Your task to perform on an android device: open app "The Home Depot" (install if not already installed) Image 0: 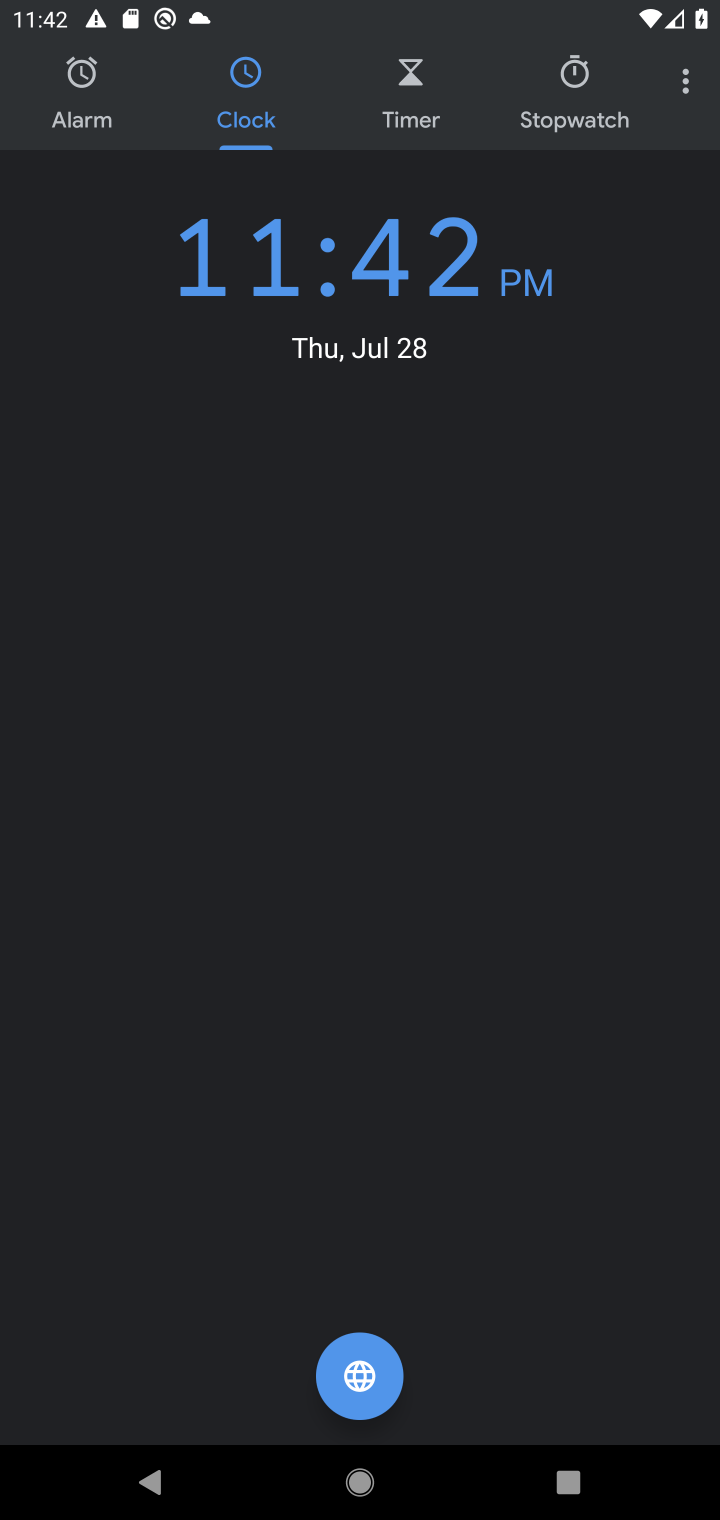
Step 0: press home button
Your task to perform on an android device: open app "The Home Depot" (install if not already installed) Image 1: 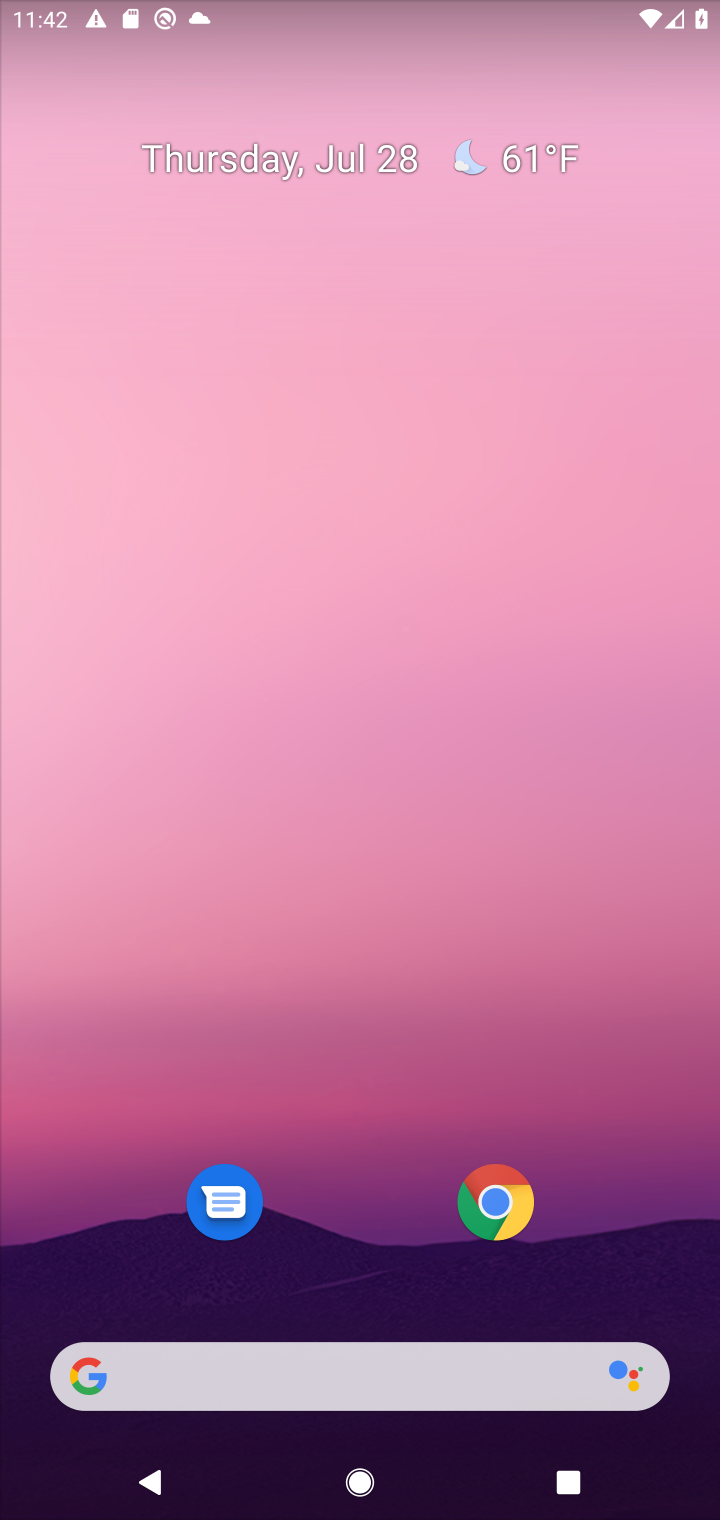
Step 1: click (295, 1393)
Your task to perform on an android device: open app "The Home Depot" (install if not already installed) Image 2: 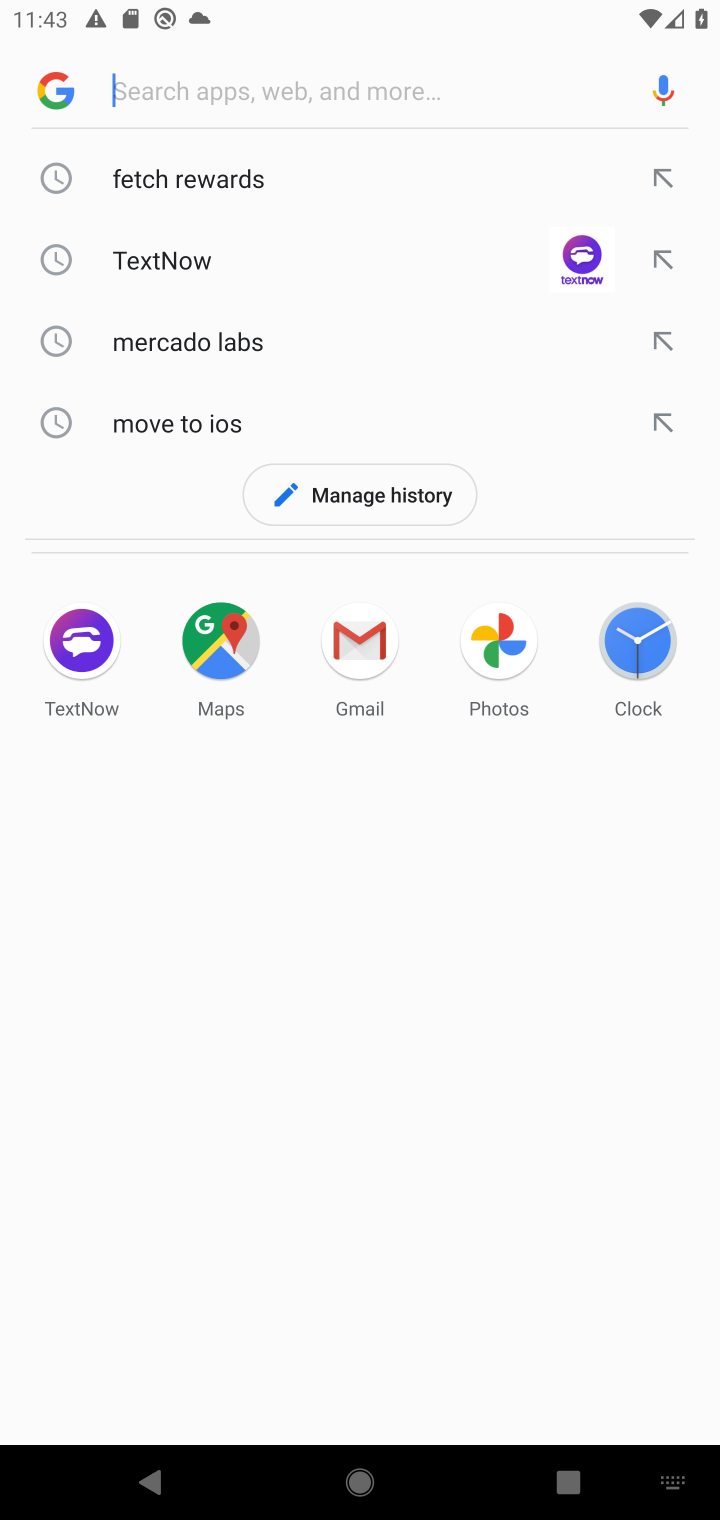
Step 2: type "the home depoet"
Your task to perform on an android device: open app "The Home Depot" (install if not already installed) Image 3: 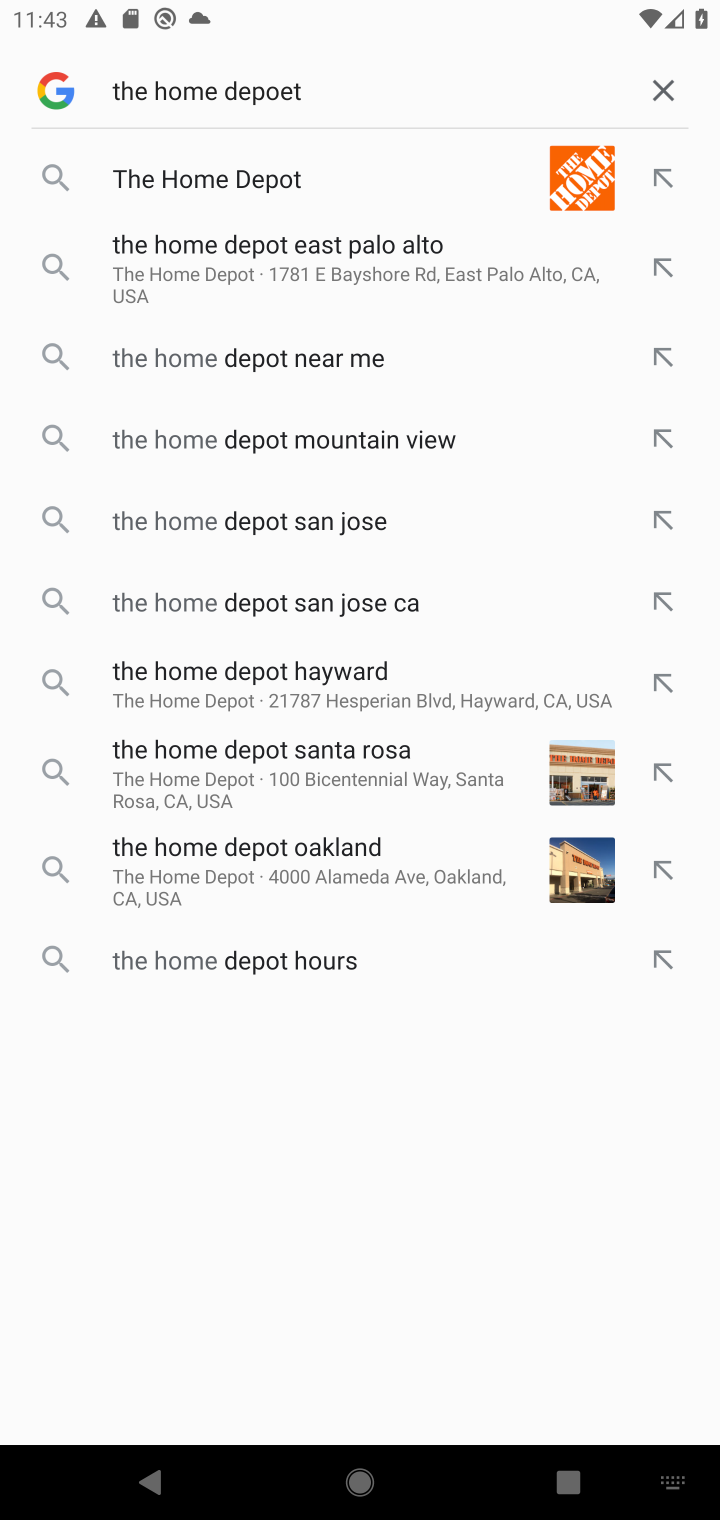
Step 3: click (325, 191)
Your task to perform on an android device: open app "The Home Depot" (install if not already installed) Image 4: 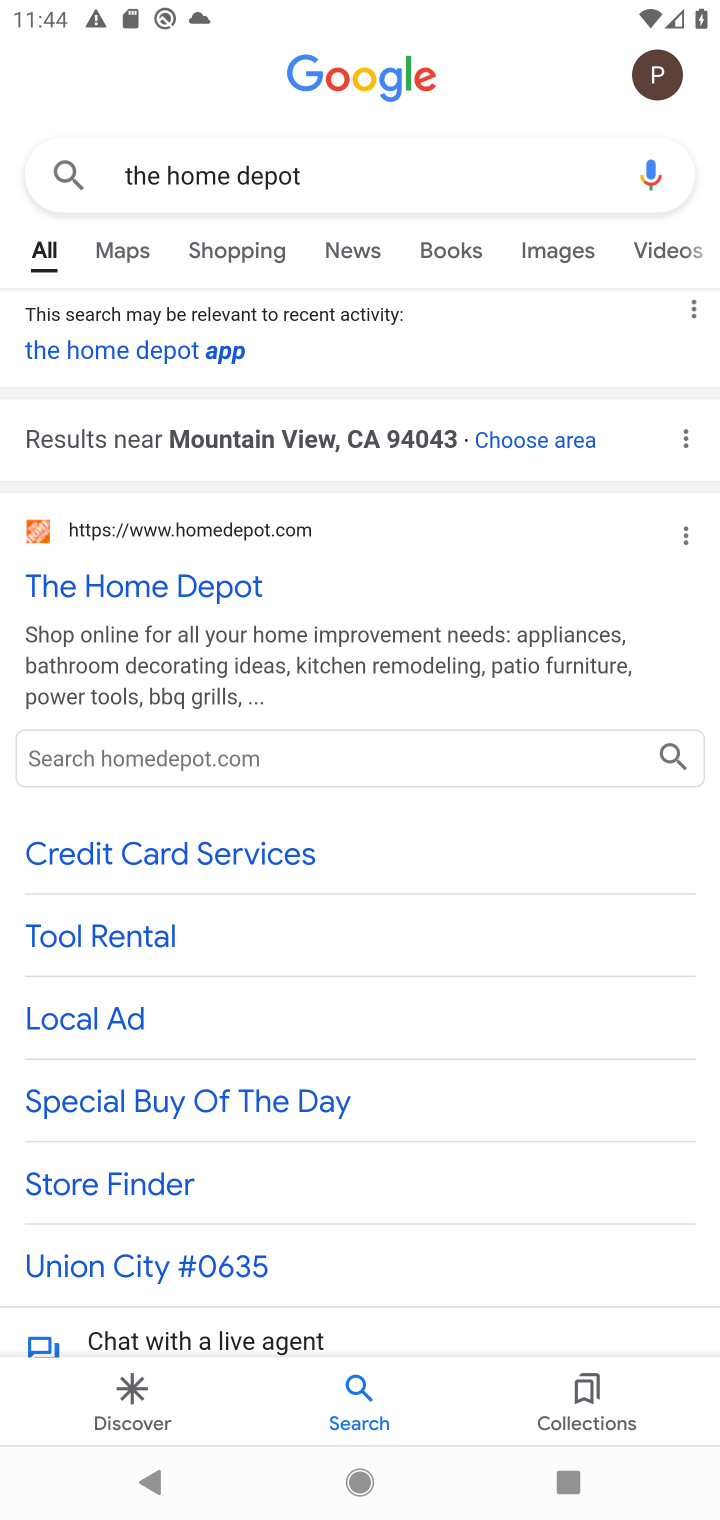
Step 4: task complete